Your task to perform on an android device: Open Google Maps and go to "Timeline" Image 0: 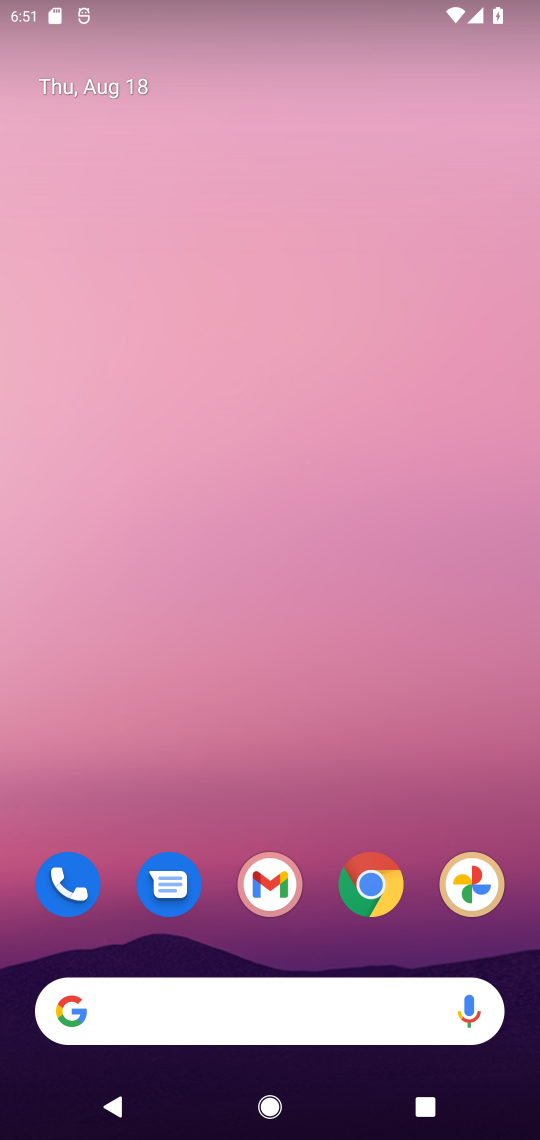
Step 0: drag from (231, 943) to (247, 314)
Your task to perform on an android device: Open Google Maps and go to "Timeline" Image 1: 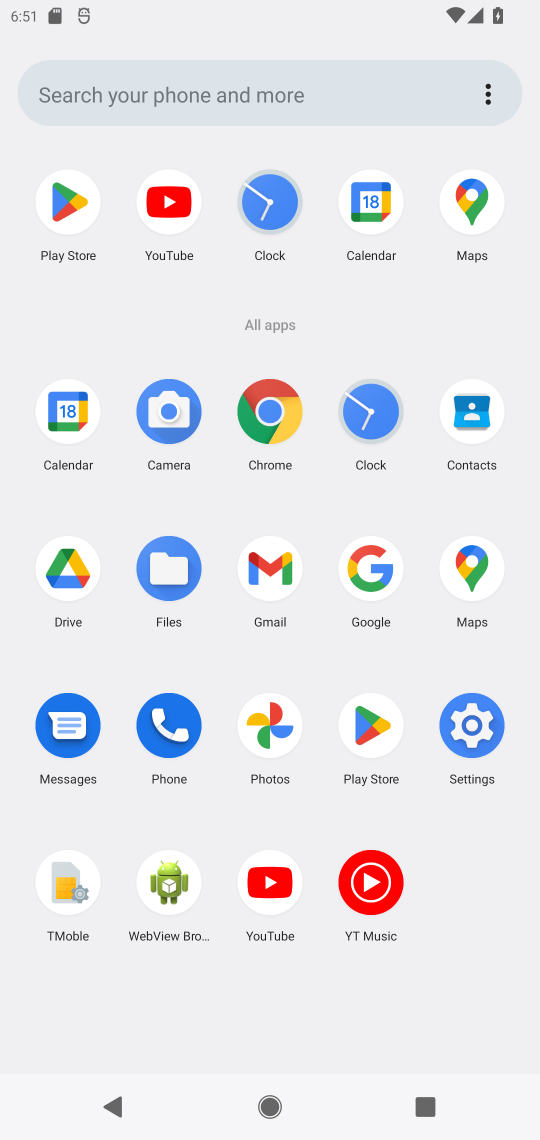
Step 1: click (463, 565)
Your task to perform on an android device: Open Google Maps and go to "Timeline" Image 2: 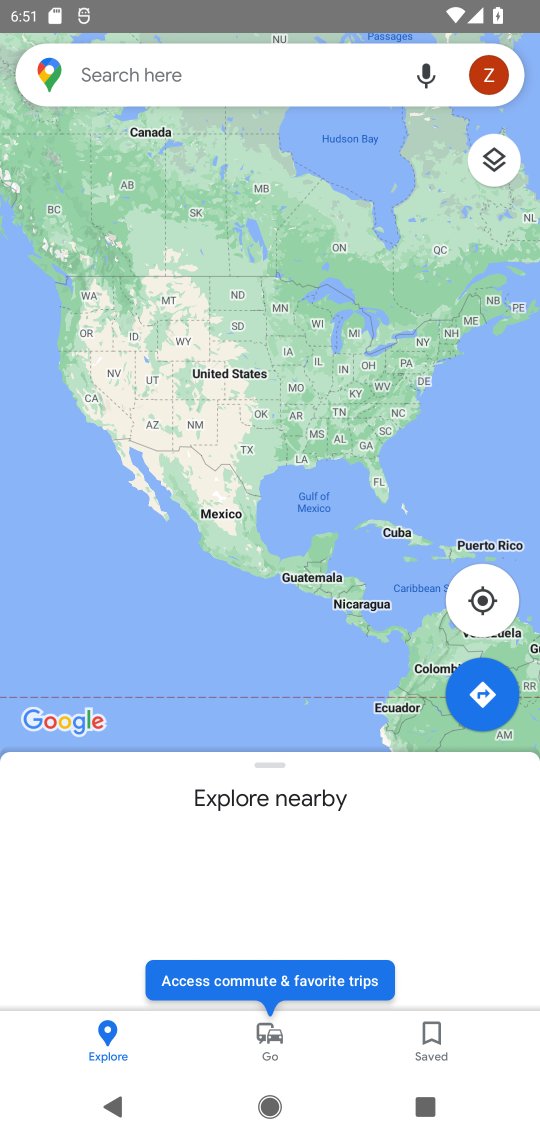
Step 2: click (479, 76)
Your task to perform on an android device: Open Google Maps and go to "Timeline" Image 3: 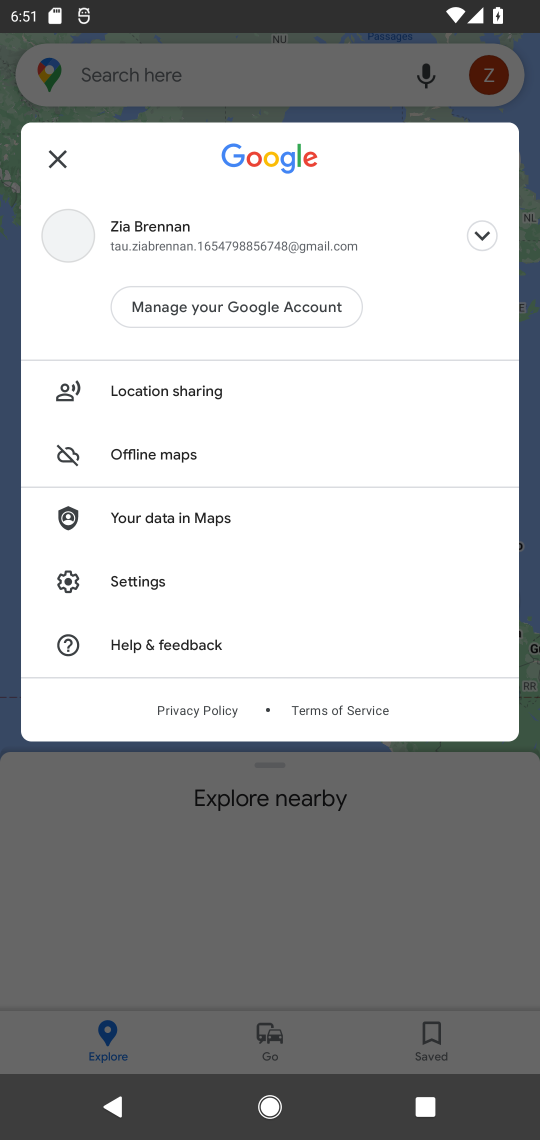
Step 3: click (169, 854)
Your task to perform on an android device: Open Google Maps and go to "Timeline" Image 4: 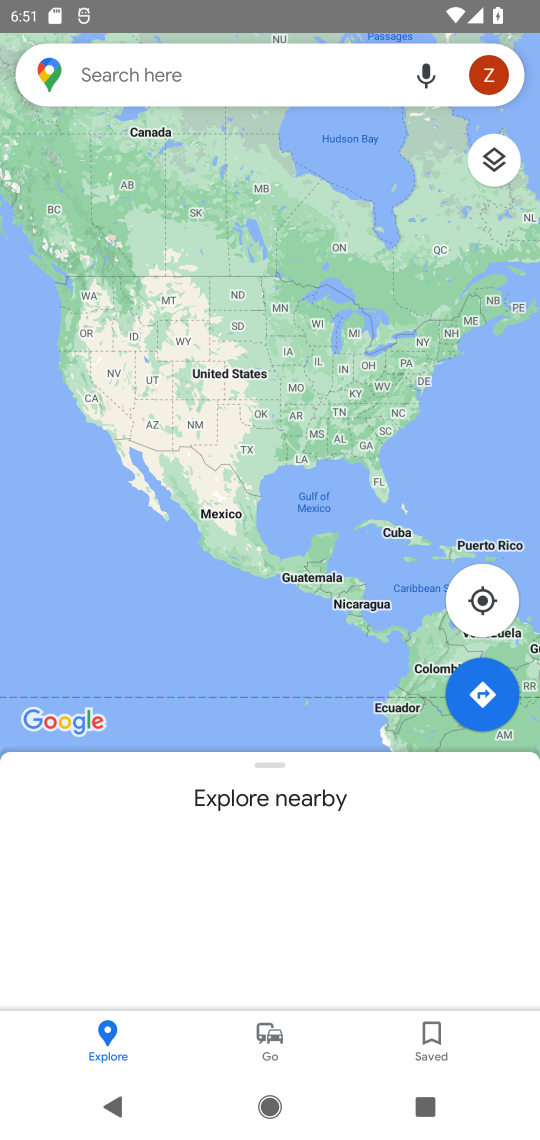
Step 4: click (44, 95)
Your task to perform on an android device: Open Google Maps and go to "Timeline" Image 5: 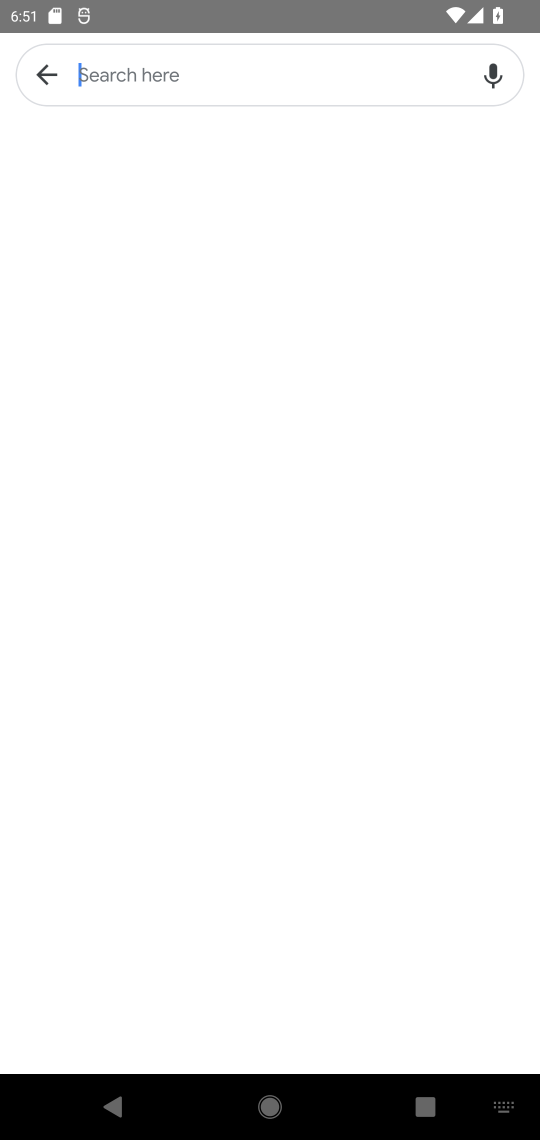
Step 5: click (44, 95)
Your task to perform on an android device: Open Google Maps and go to "Timeline" Image 6: 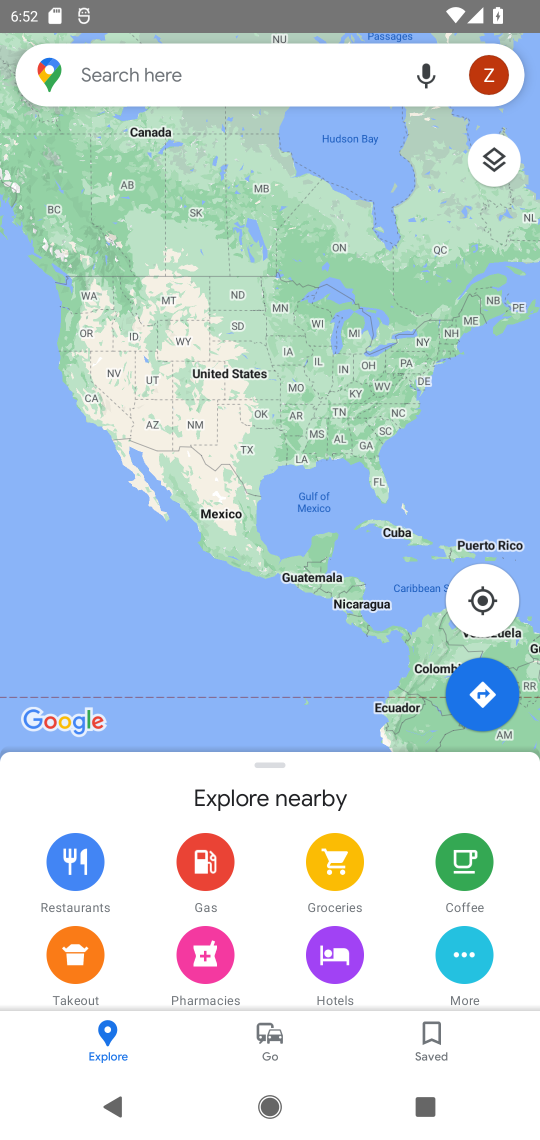
Step 6: click (490, 67)
Your task to perform on an android device: Open Google Maps and go to "Timeline" Image 7: 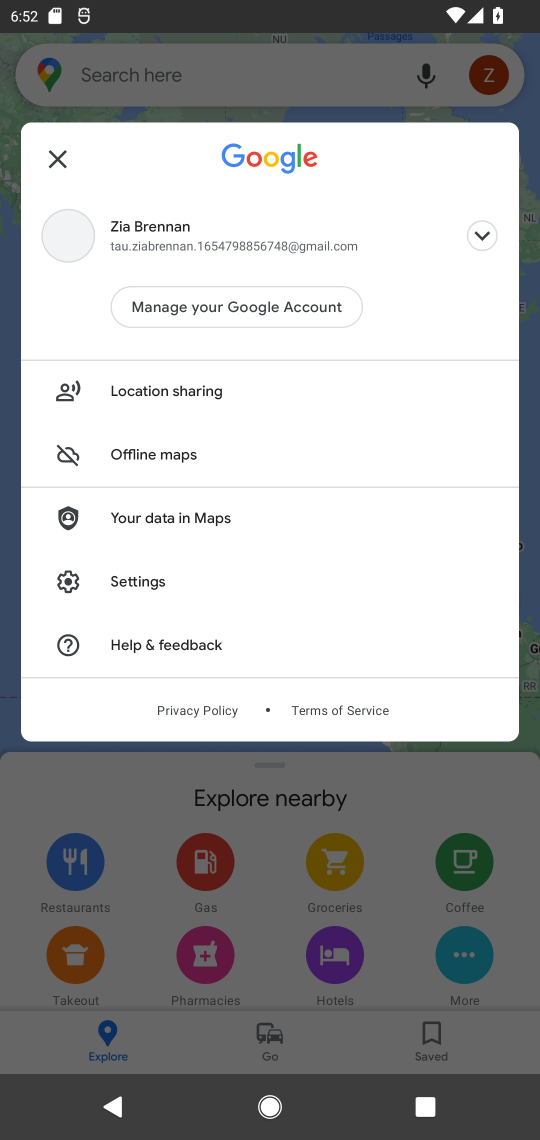
Step 7: click (154, 580)
Your task to perform on an android device: Open Google Maps and go to "Timeline" Image 8: 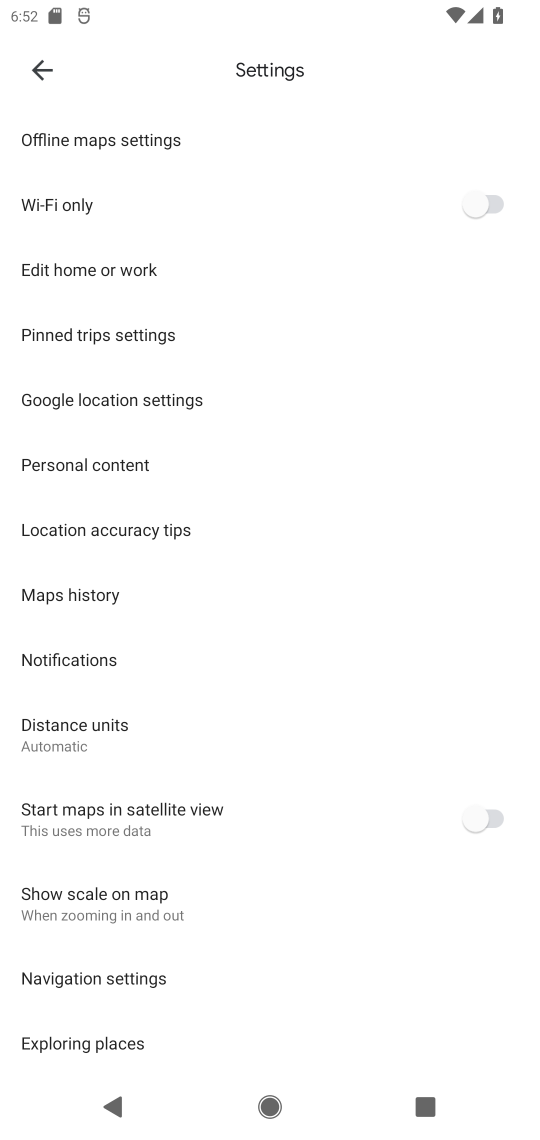
Step 8: task complete